Your task to perform on an android device: What is the news today? Image 0: 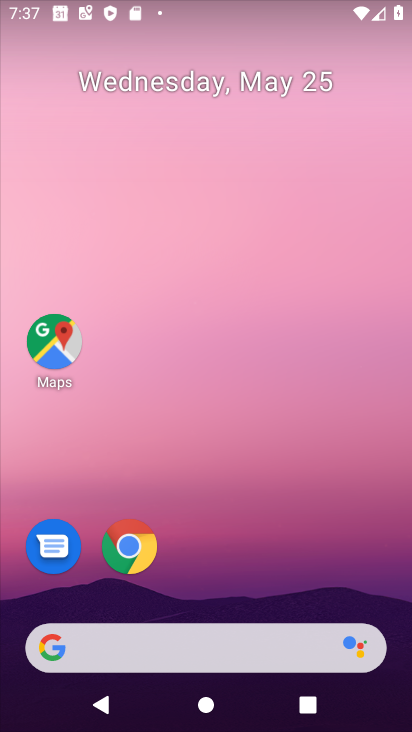
Step 0: click (55, 646)
Your task to perform on an android device: What is the news today? Image 1: 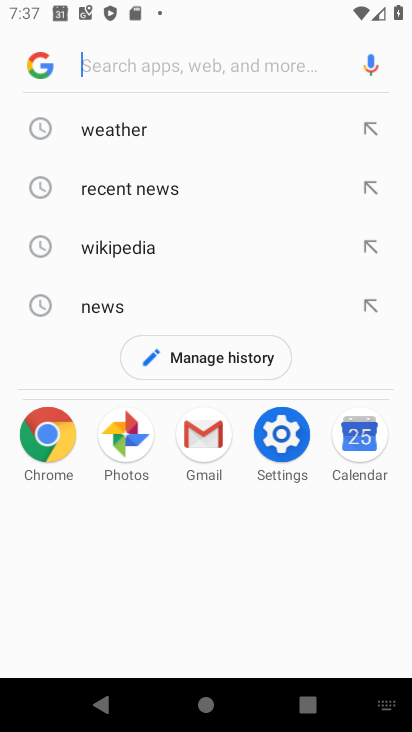
Step 1: click (94, 308)
Your task to perform on an android device: What is the news today? Image 2: 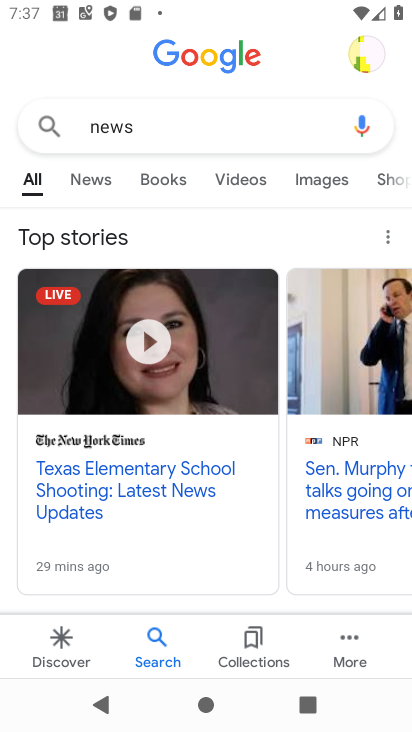
Step 2: click (97, 181)
Your task to perform on an android device: What is the news today? Image 3: 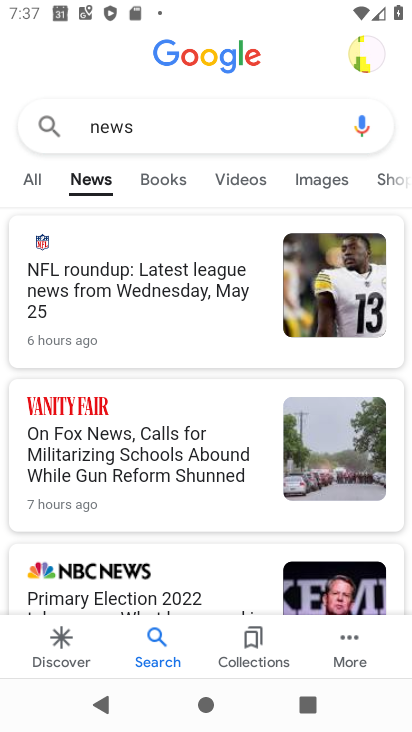
Step 3: task complete